Your task to perform on an android device: open a new tab in the chrome app Image 0: 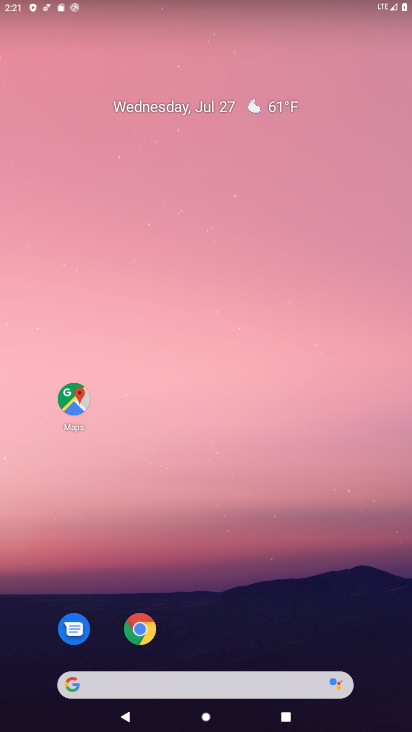
Step 0: click (138, 629)
Your task to perform on an android device: open a new tab in the chrome app Image 1: 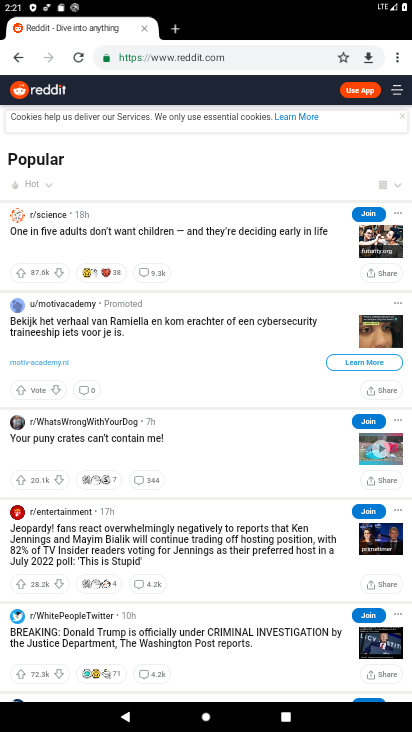
Step 1: click (396, 59)
Your task to perform on an android device: open a new tab in the chrome app Image 2: 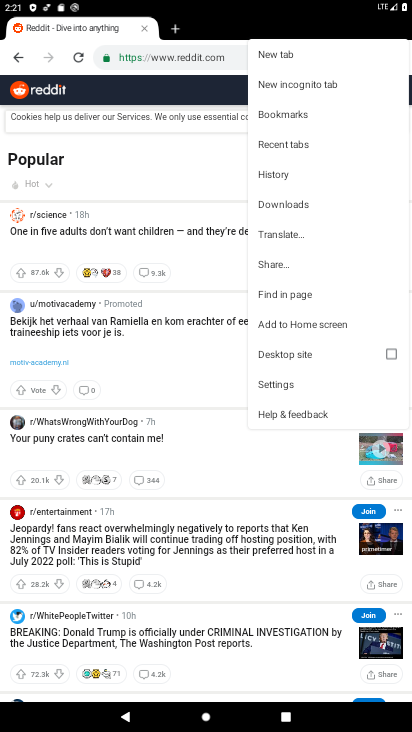
Step 2: click (280, 54)
Your task to perform on an android device: open a new tab in the chrome app Image 3: 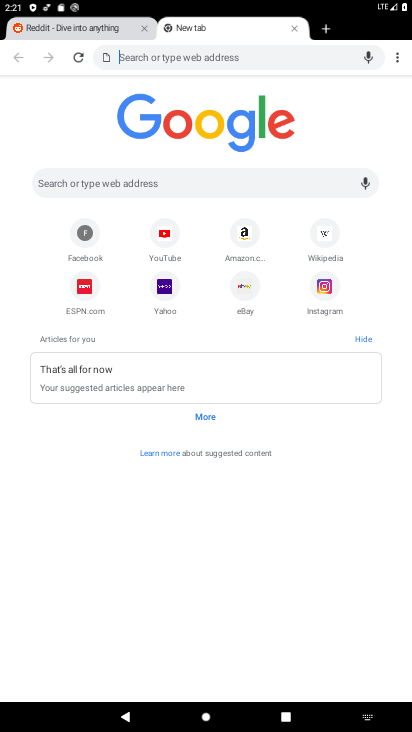
Step 3: task complete